Your task to perform on an android device: Open Google Chrome and click the shortcut for Amazon.com Image 0: 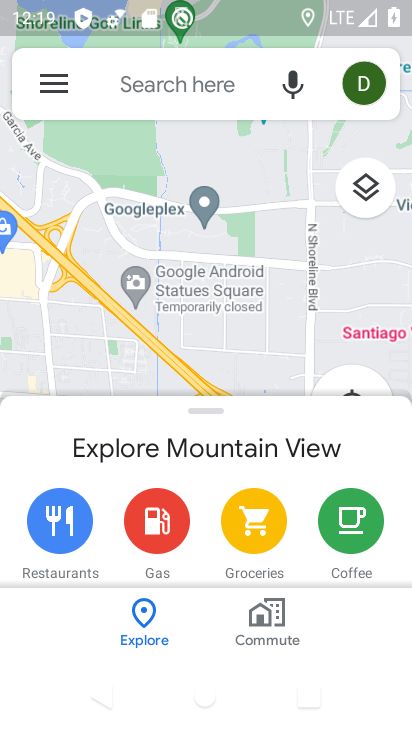
Step 0: press home button
Your task to perform on an android device: Open Google Chrome and click the shortcut for Amazon.com Image 1: 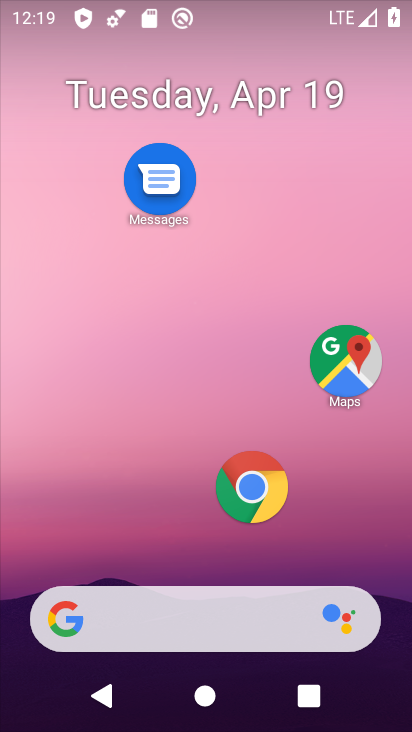
Step 1: click (243, 483)
Your task to perform on an android device: Open Google Chrome and click the shortcut for Amazon.com Image 2: 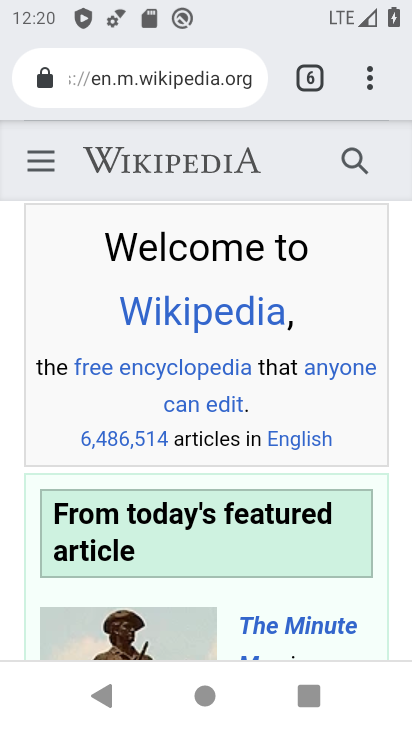
Step 2: click (364, 84)
Your task to perform on an android device: Open Google Chrome and click the shortcut for Amazon.com Image 3: 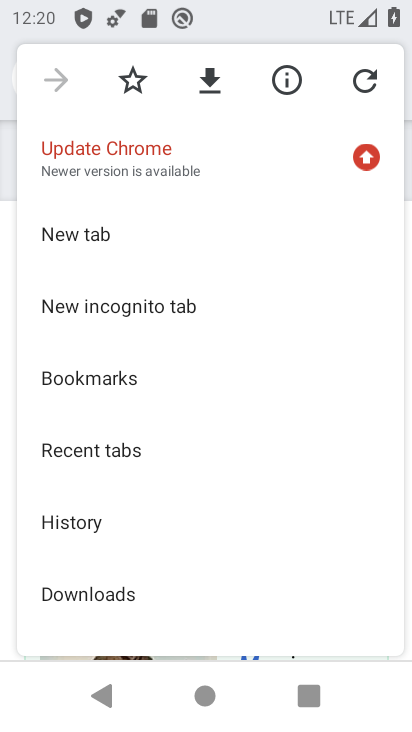
Step 3: click (85, 232)
Your task to perform on an android device: Open Google Chrome and click the shortcut for Amazon.com Image 4: 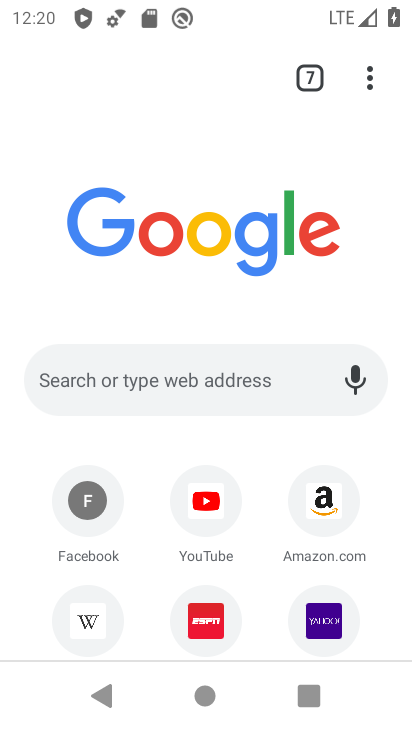
Step 4: click (334, 518)
Your task to perform on an android device: Open Google Chrome and click the shortcut for Amazon.com Image 5: 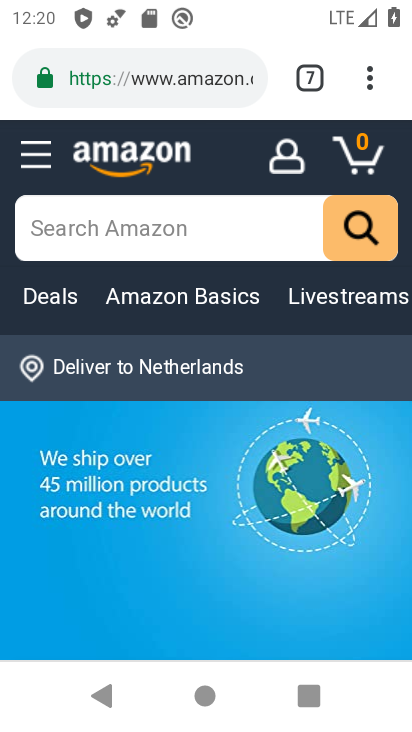
Step 5: task complete